Your task to perform on an android device: check android version Image 0: 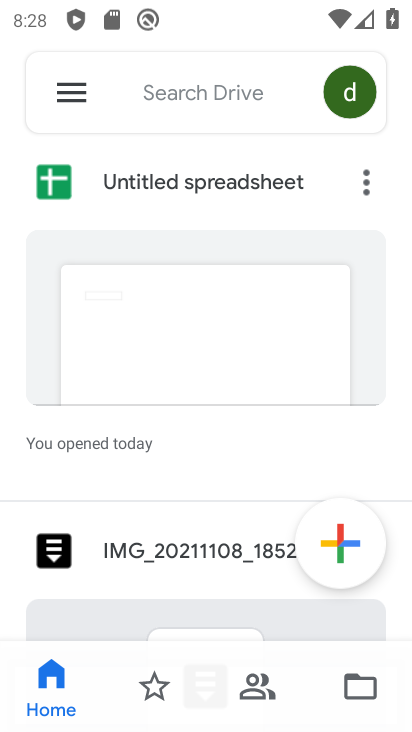
Step 0: press home button
Your task to perform on an android device: check android version Image 1: 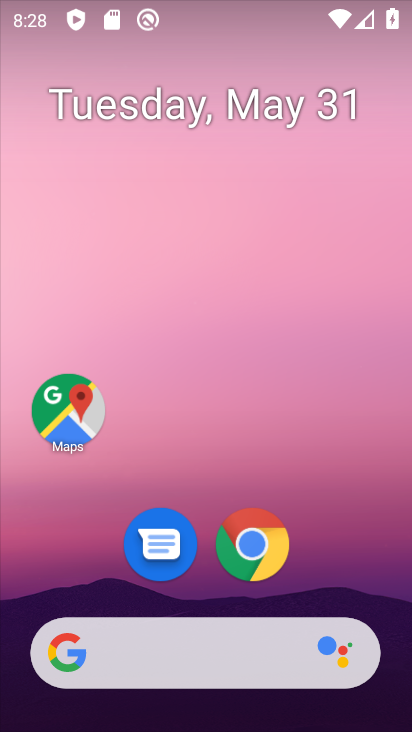
Step 1: drag from (211, 644) to (181, 128)
Your task to perform on an android device: check android version Image 2: 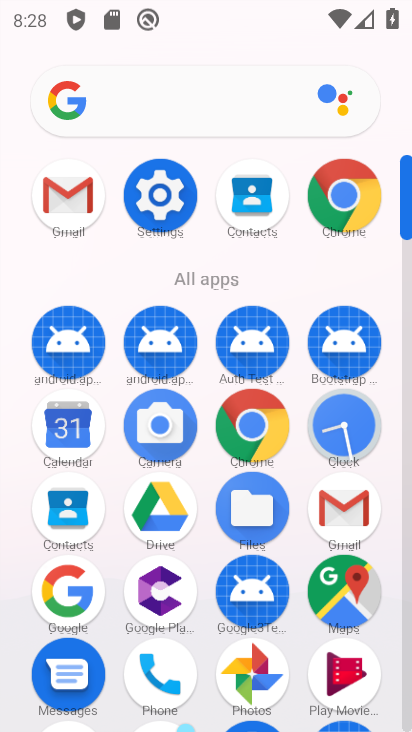
Step 2: click (147, 218)
Your task to perform on an android device: check android version Image 3: 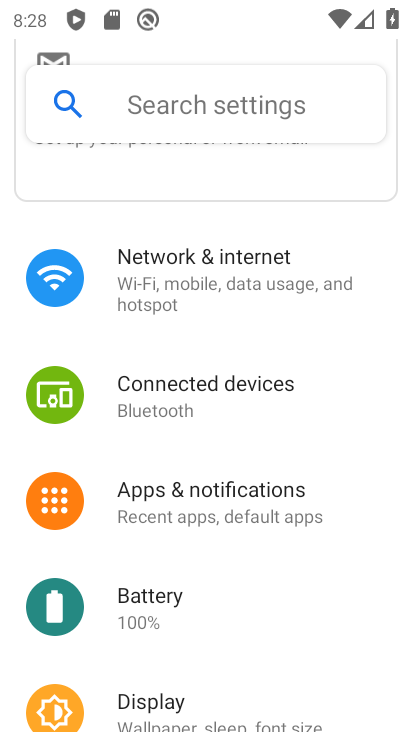
Step 3: drag from (240, 558) to (229, 122)
Your task to perform on an android device: check android version Image 4: 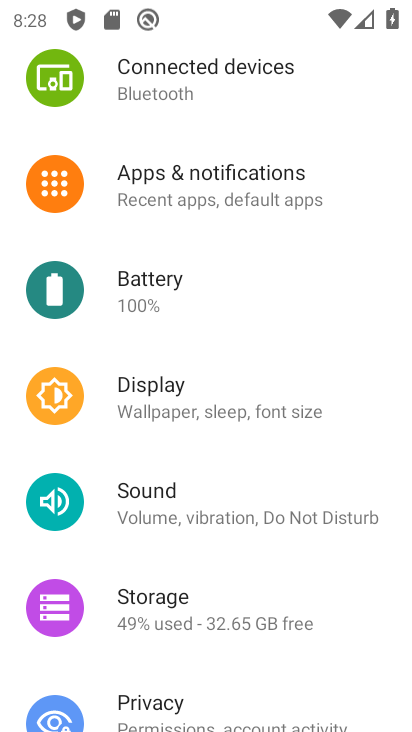
Step 4: drag from (219, 587) to (249, 120)
Your task to perform on an android device: check android version Image 5: 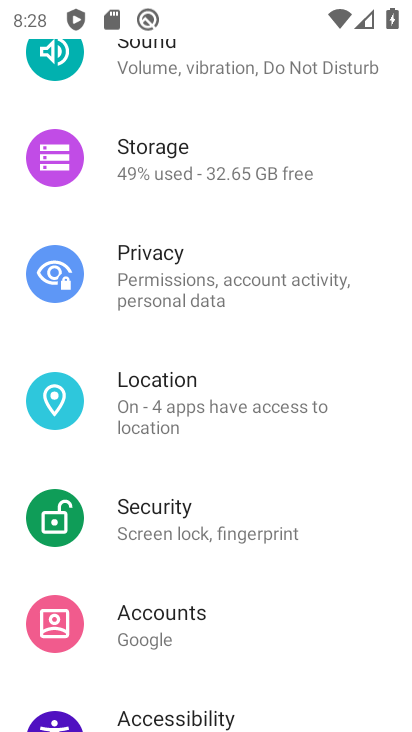
Step 5: drag from (151, 635) to (157, 149)
Your task to perform on an android device: check android version Image 6: 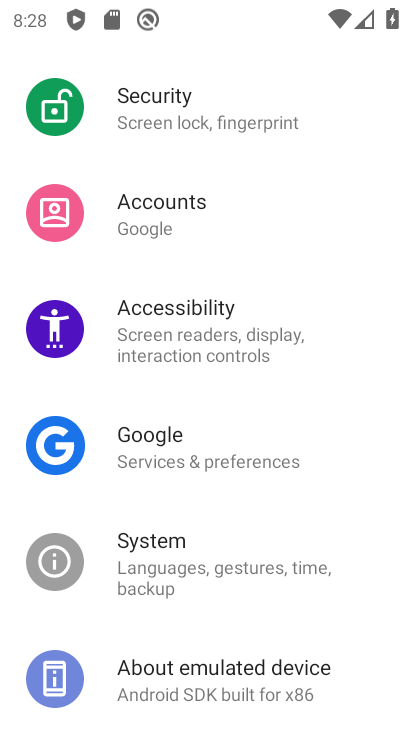
Step 6: click (217, 685)
Your task to perform on an android device: check android version Image 7: 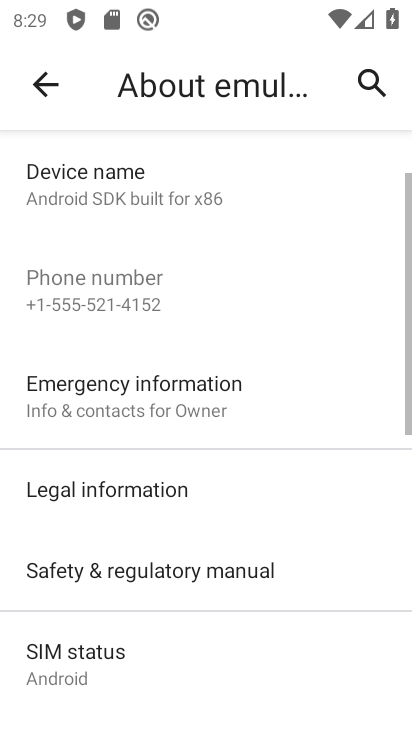
Step 7: drag from (262, 670) to (260, 129)
Your task to perform on an android device: check android version Image 8: 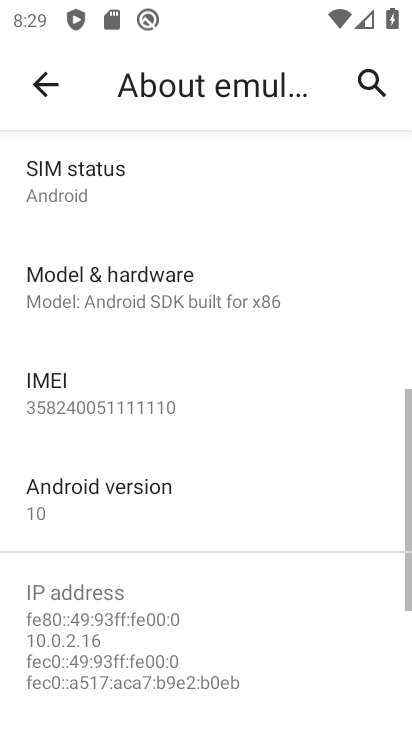
Step 8: click (200, 497)
Your task to perform on an android device: check android version Image 9: 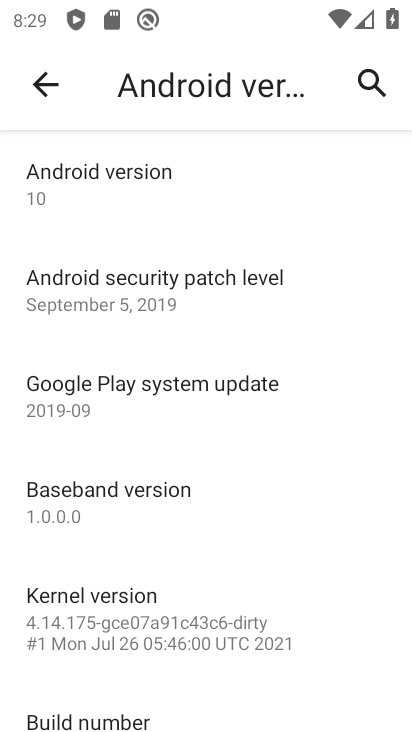
Step 9: task complete